Your task to perform on an android device: Do I have any events tomorrow? Image 0: 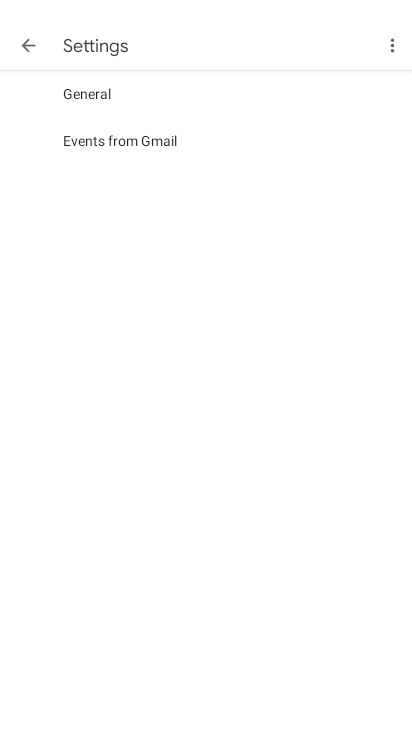
Step 0: press home button
Your task to perform on an android device: Do I have any events tomorrow? Image 1: 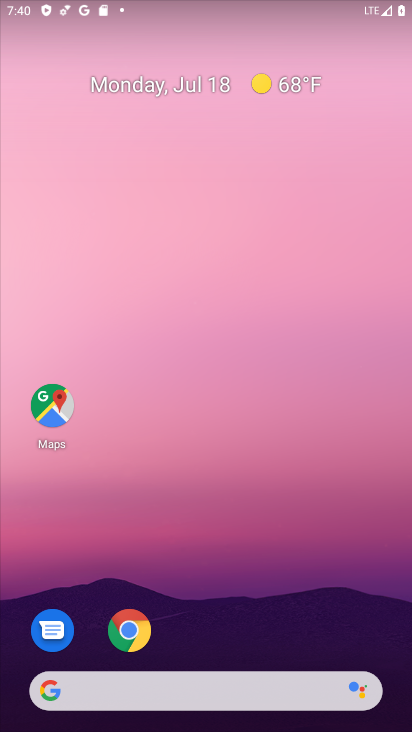
Step 1: drag from (219, 642) to (238, 210)
Your task to perform on an android device: Do I have any events tomorrow? Image 2: 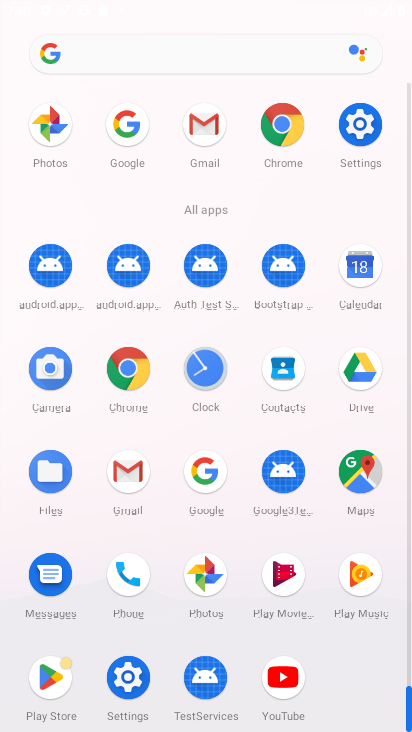
Step 2: click (350, 277)
Your task to perform on an android device: Do I have any events tomorrow? Image 3: 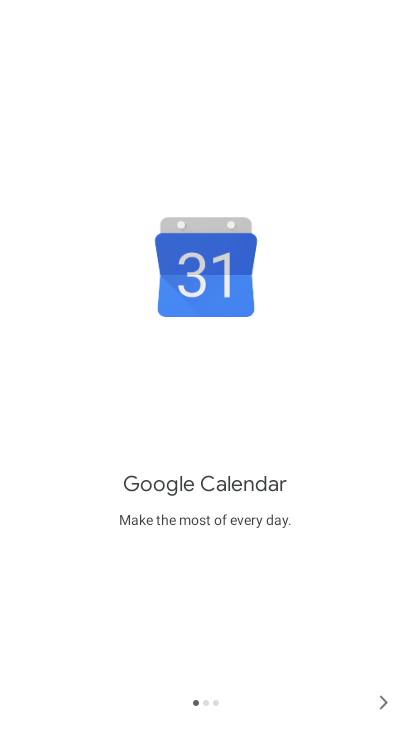
Step 3: click (390, 700)
Your task to perform on an android device: Do I have any events tomorrow? Image 4: 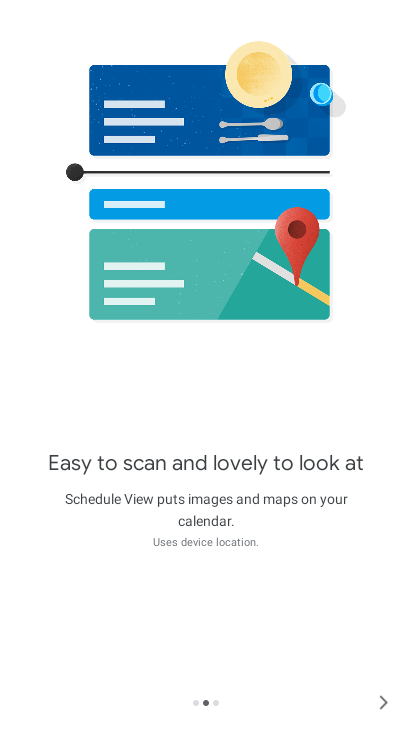
Step 4: click (391, 699)
Your task to perform on an android device: Do I have any events tomorrow? Image 5: 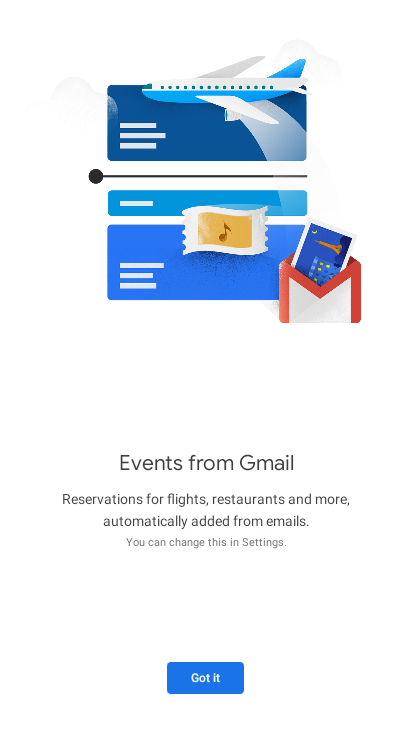
Step 5: click (188, 685)
Your task to perform on an android device: Do I have any events tomorrow? Image 6: 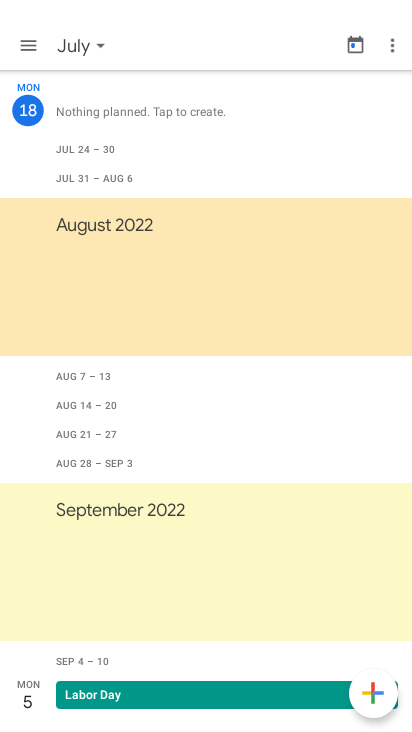
Step 6: click (87, 47)
Your task to perform on an android device: Do I have any events tomorrow? Image 7: 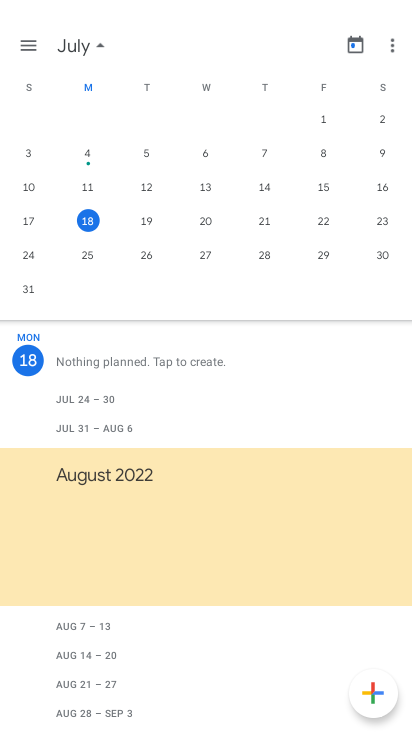
Step 7: click (152, 229)
Your task to perform on an android device: Do I have any events tomorrow? Image 8: 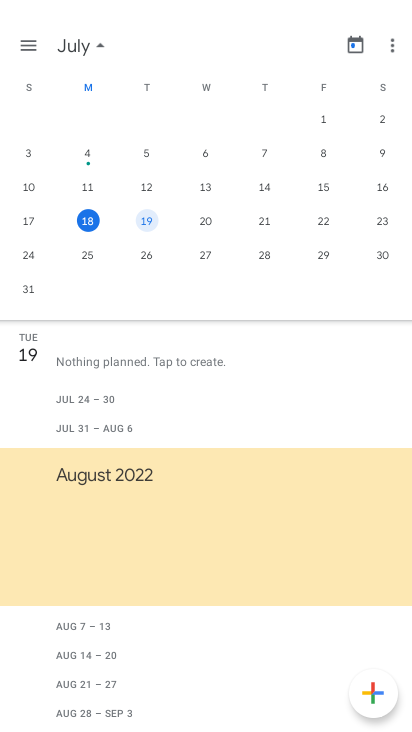
Step 8: task complete